Your task to perform on an android device: clear history in the chrome app Image 0: 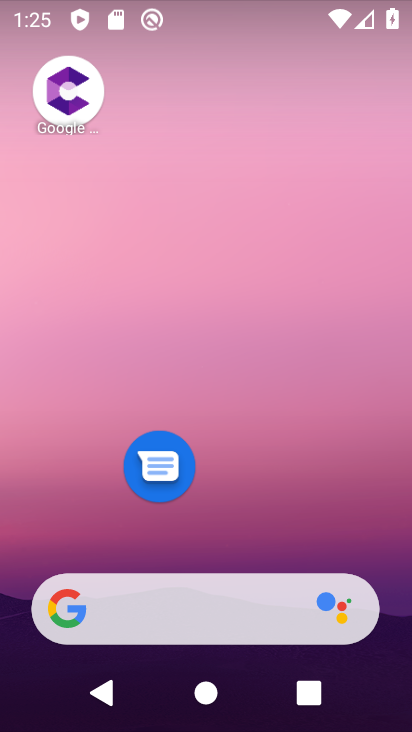
Step 0: drag from (291, 511) to (282, 93)
Your task to perform on an android device: clear history in the chrome app Image 1: 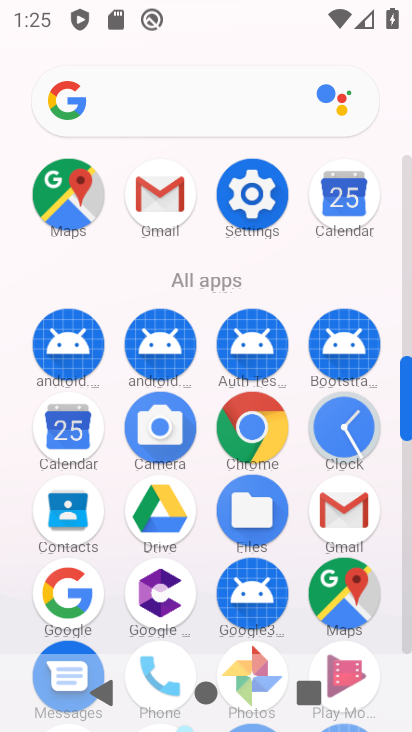
Step 1: click (249, 430)
Your task to perform on an android device: clear history in the chrome app Image 2: 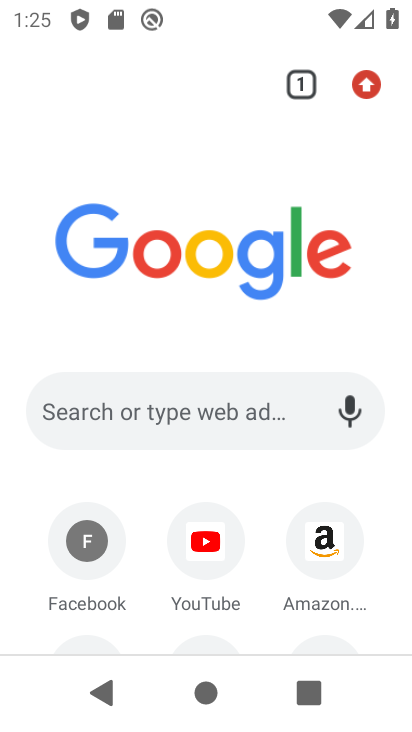
Step 2: click (374, 85)
Your task to perform on an android device: clear history in the chrome app Image 3: 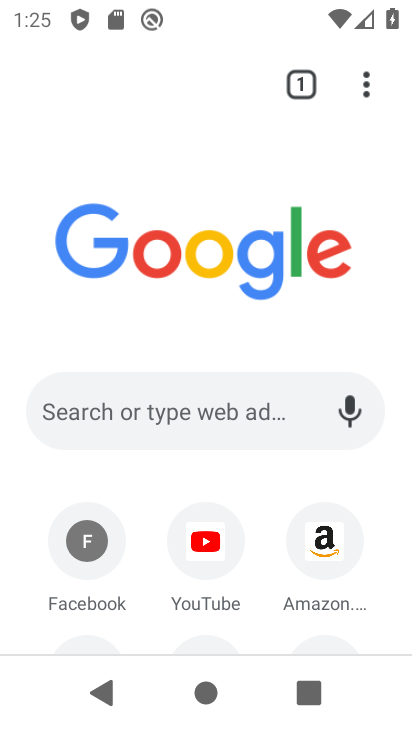
Step 3: click (373, 98)
Your task to perform on an android device: clear history in the chrome app Image 4: 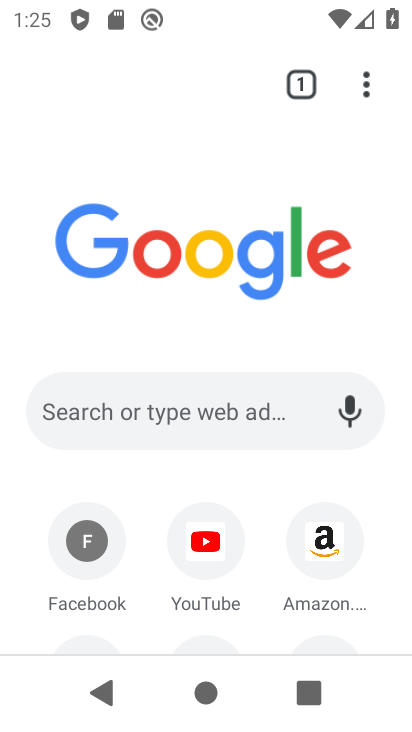
Step 4: click (372, 85)
Your task to perform on an android device: clear history in the chrome app Image 5: 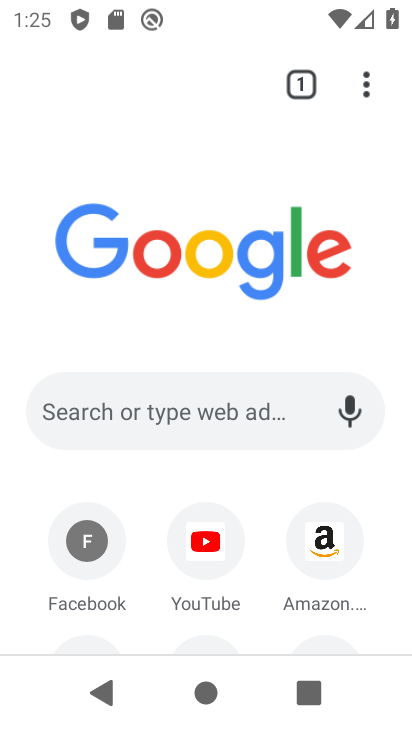
Step 5: click (349, 94)
Your task to perform on an android device: clear history in the chrome app Image 6: 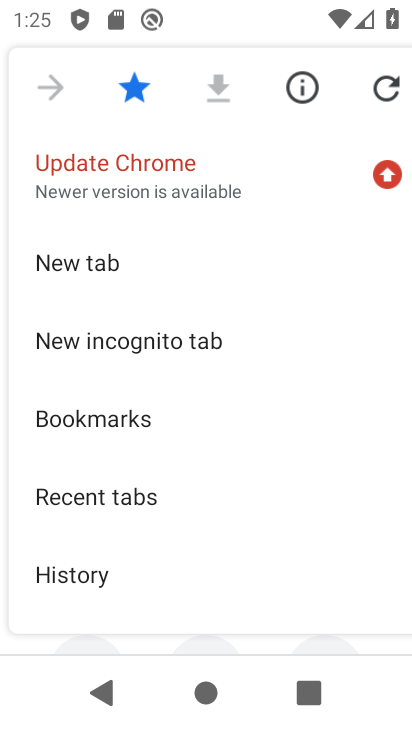
Step 6: click (164, 581)
Your task to perform on an android device: clear history in the chrome app Image 7: 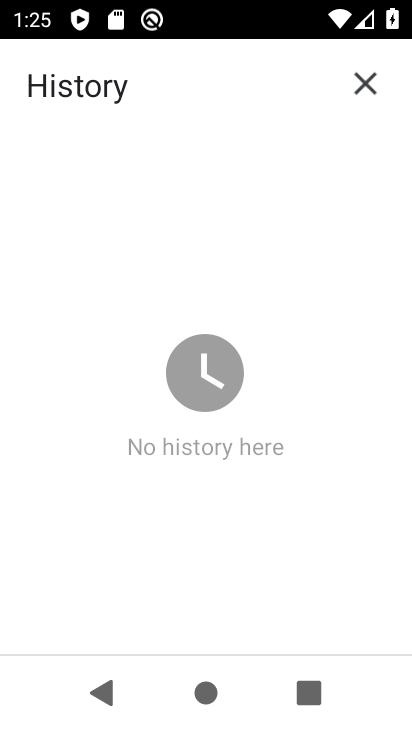
Step 7: task complete